Your task to perform on an android device: add a label to a message in the gmail app Image 0: 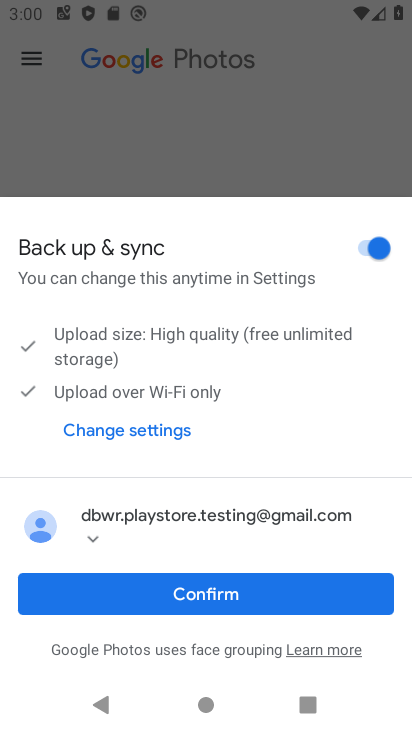
Step 0: press home button
Your task to perform on an android device: add a label to a message in the gmail app Image 1: 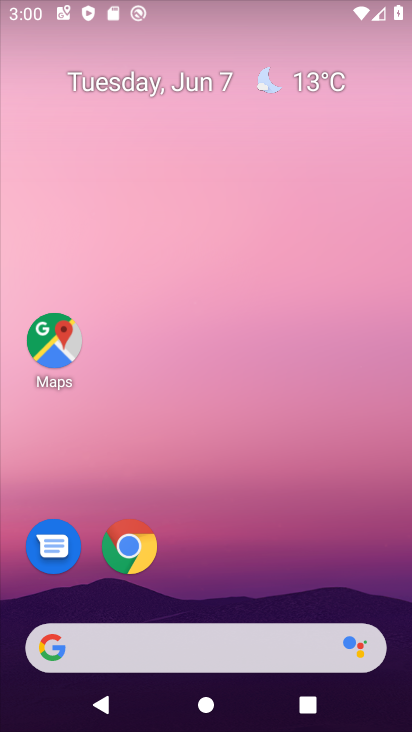
Step 1: drag from (21, 538) to (338, 82)
Your task to perform on an android device: add a label to a message in the gmail app Image 2: 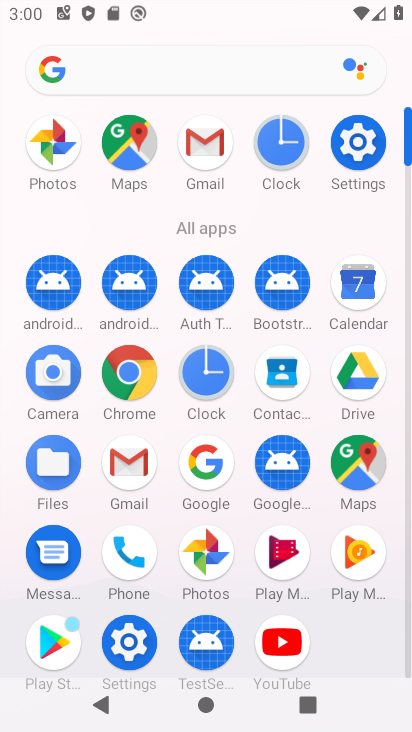
Step 2: click (191, 158)
Your task to perform on an android device: add a label to a message in the gmail app Image 3: 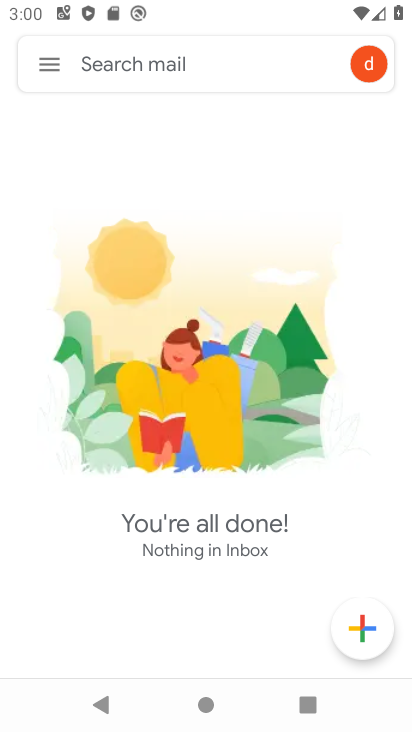
Step 3: task complete